Your task to perform on an android device: Add "usb-a to usb-b" to the cart on ebay.com Image 0: 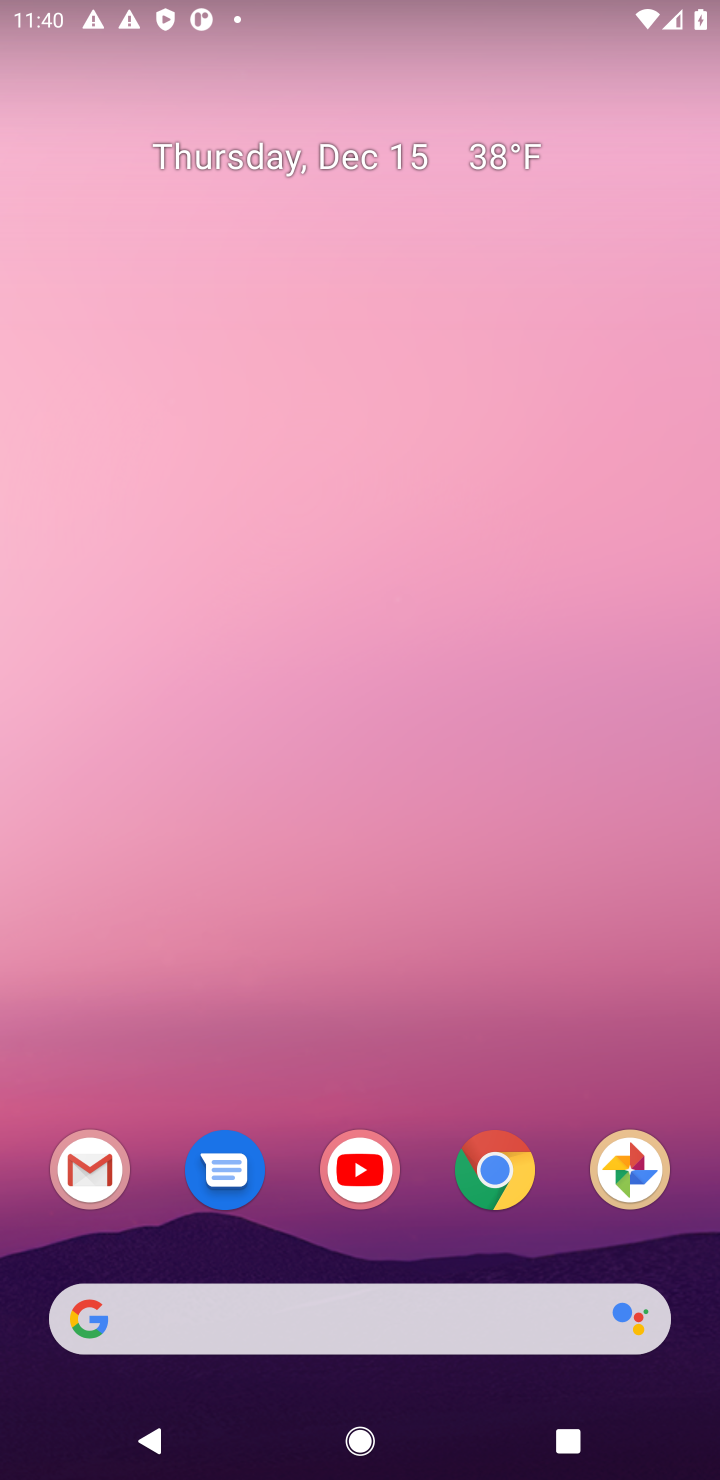
Step 0: click (501, 1176)
Your task to perform on an android device: Add "usb-a to usb-b" to the cart on ebay.com Image 1: 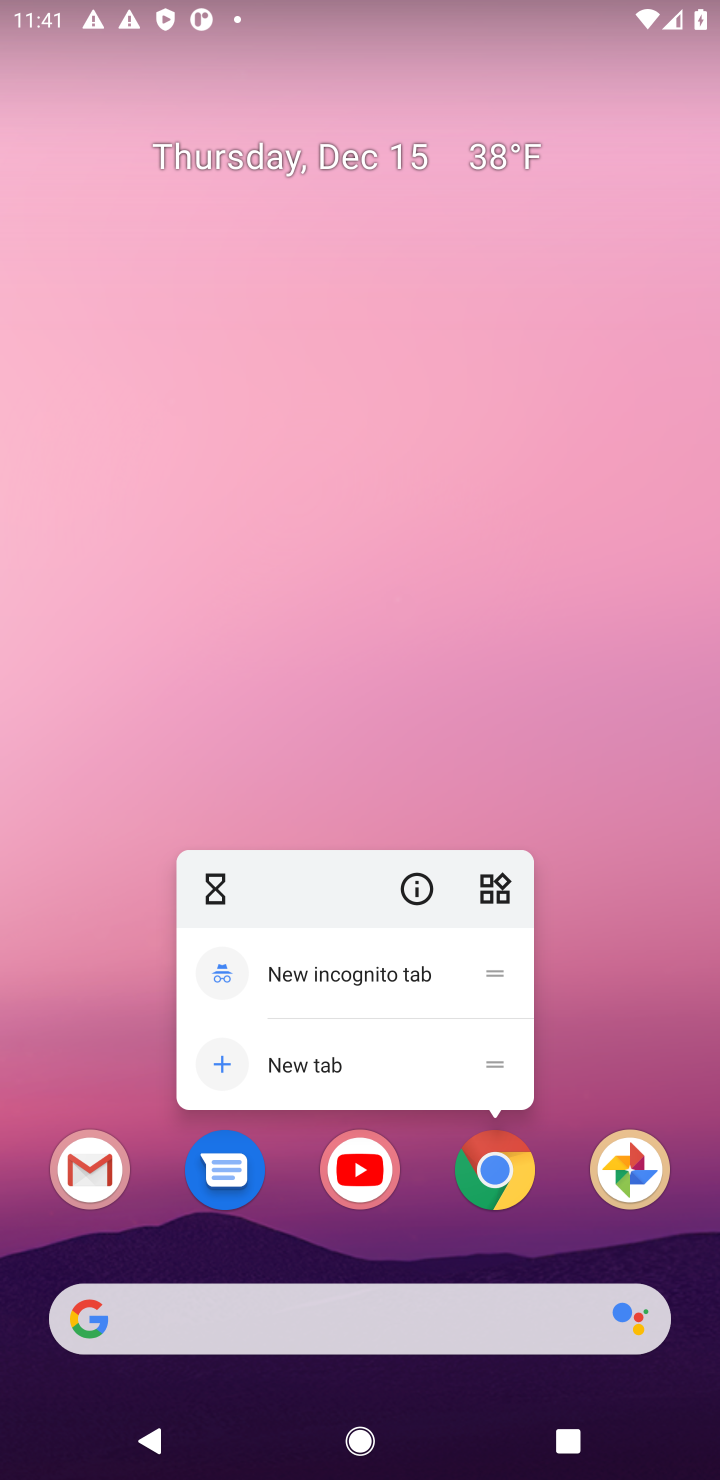
Step 1: click (501, 1176)
Your task to perform on an android device: Add "usb-a to usb-b" to the cart on ebay.com Image 2: 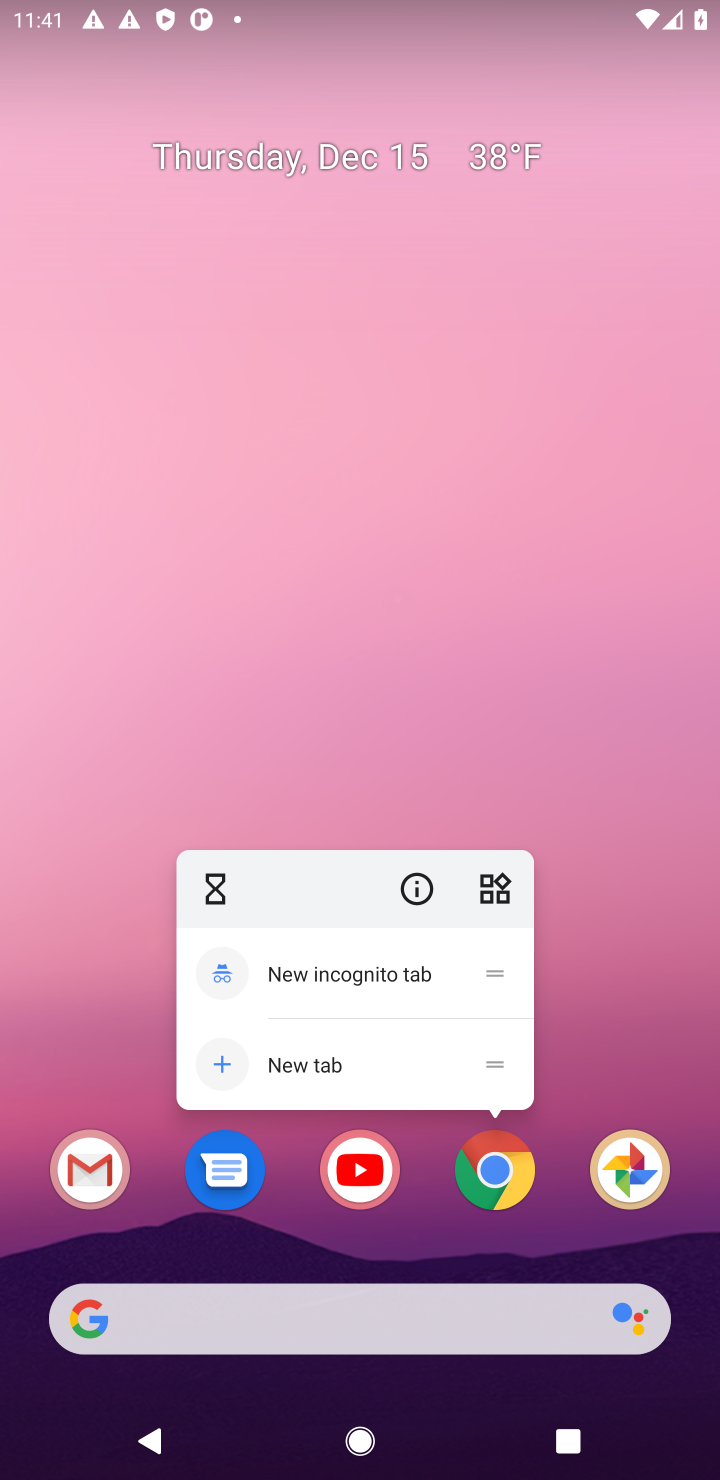
Step 2: click (493, 1182)
Your task to perform on an android device: Add "usb-a to usb-b" to the cart on ebay.com Image 3: 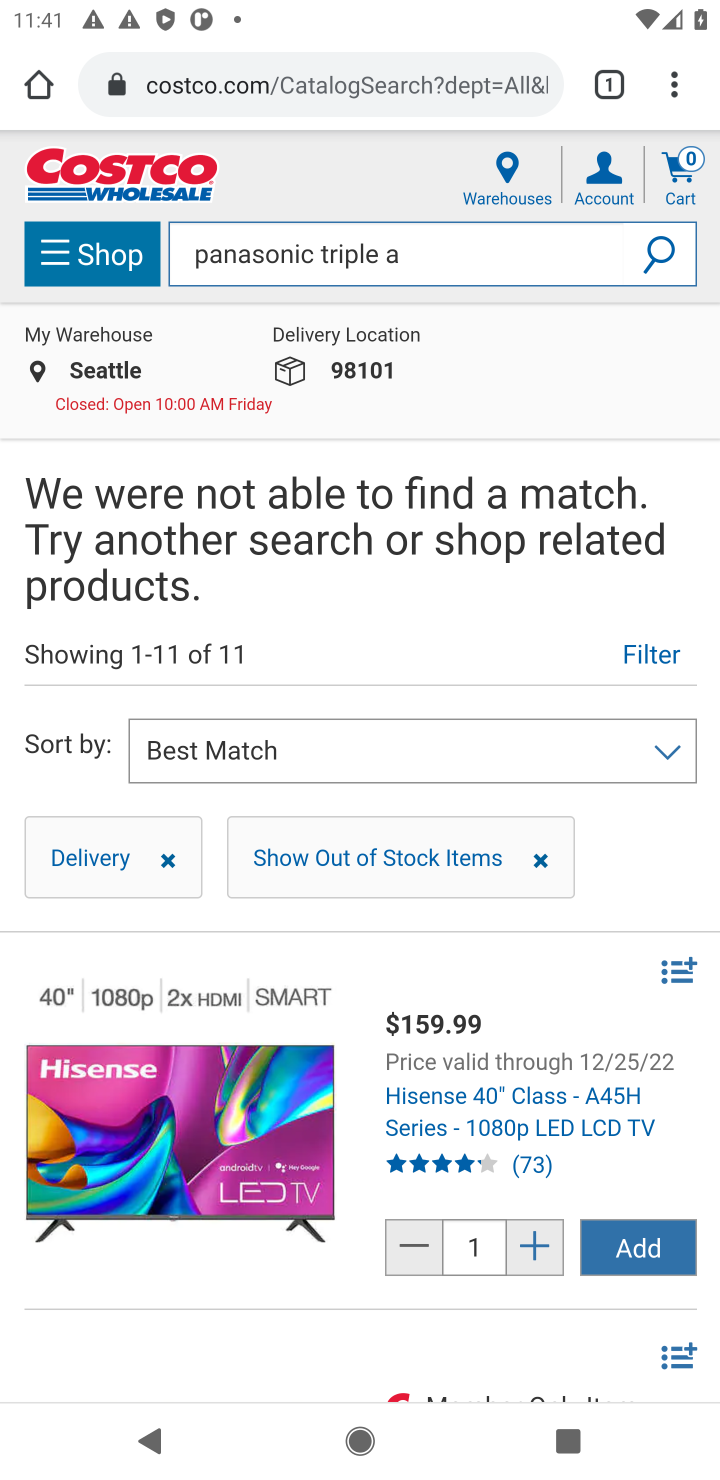
Step 3: click (239, 82)
Your task to perform on an android device: Add "usb-a to usb-b" to the cart on ebay.com Image 4: 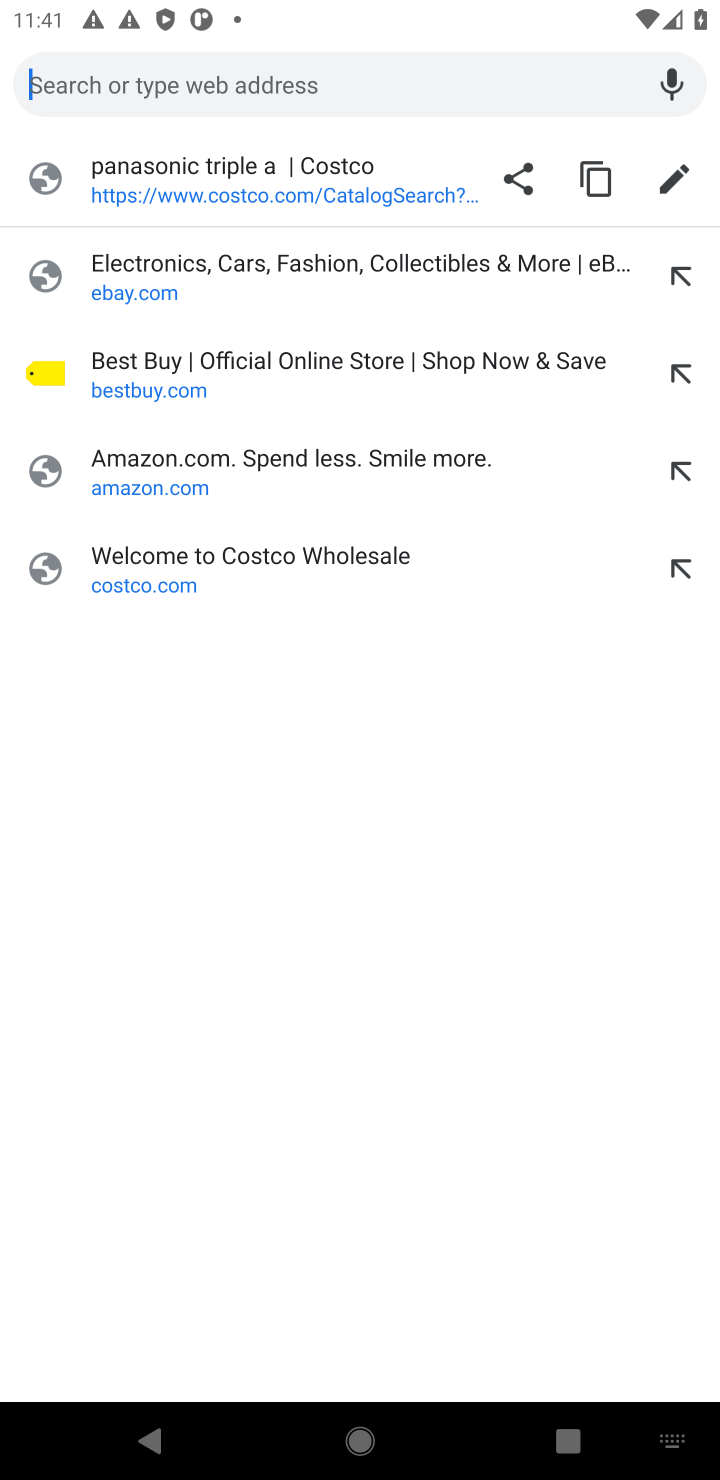
Step 4: click (121, 279)
Your task to perform on an android device: Add "usb-a to usb-b" to the cart on ebay.com Image 5: 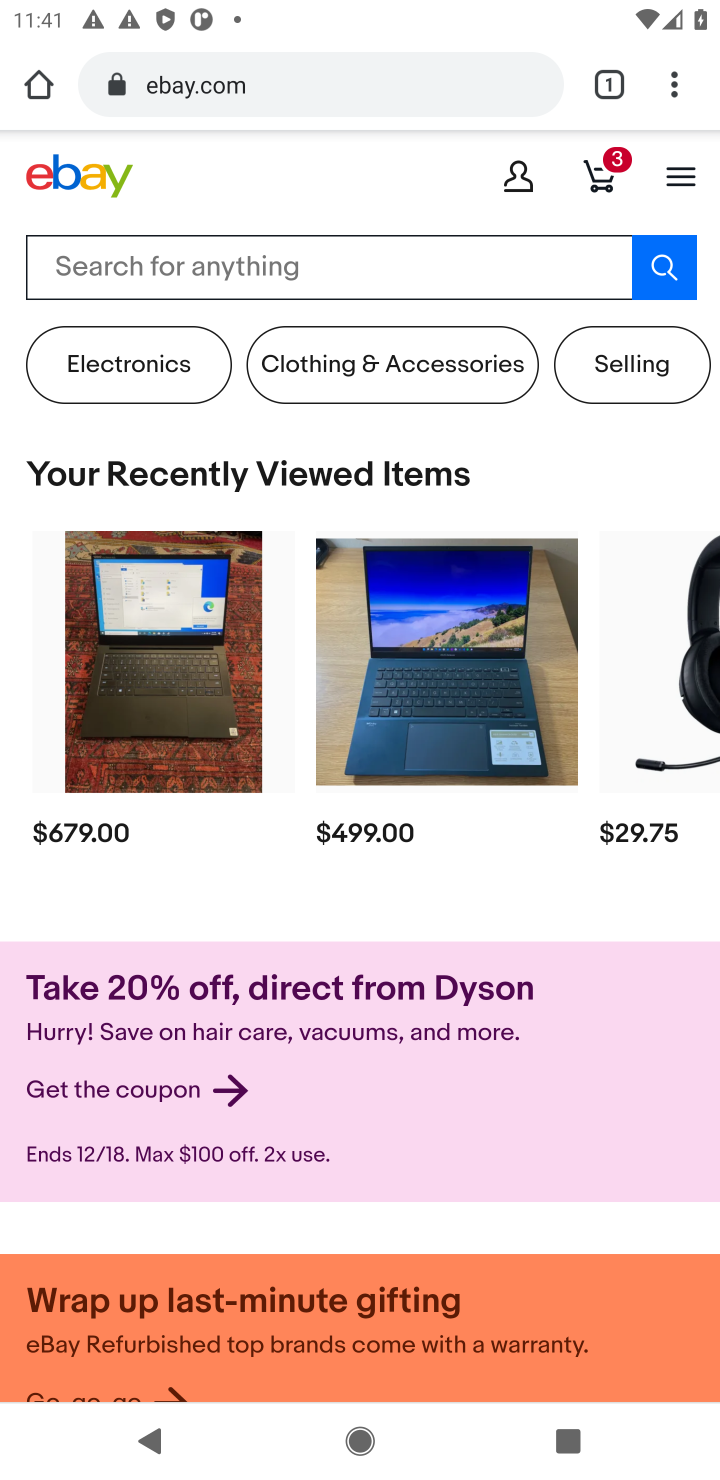
Step 5: click (112, 278)
Your task to perform on an android device: Add "usb-a to usb-b" to the cart on ebay.com Image 6: 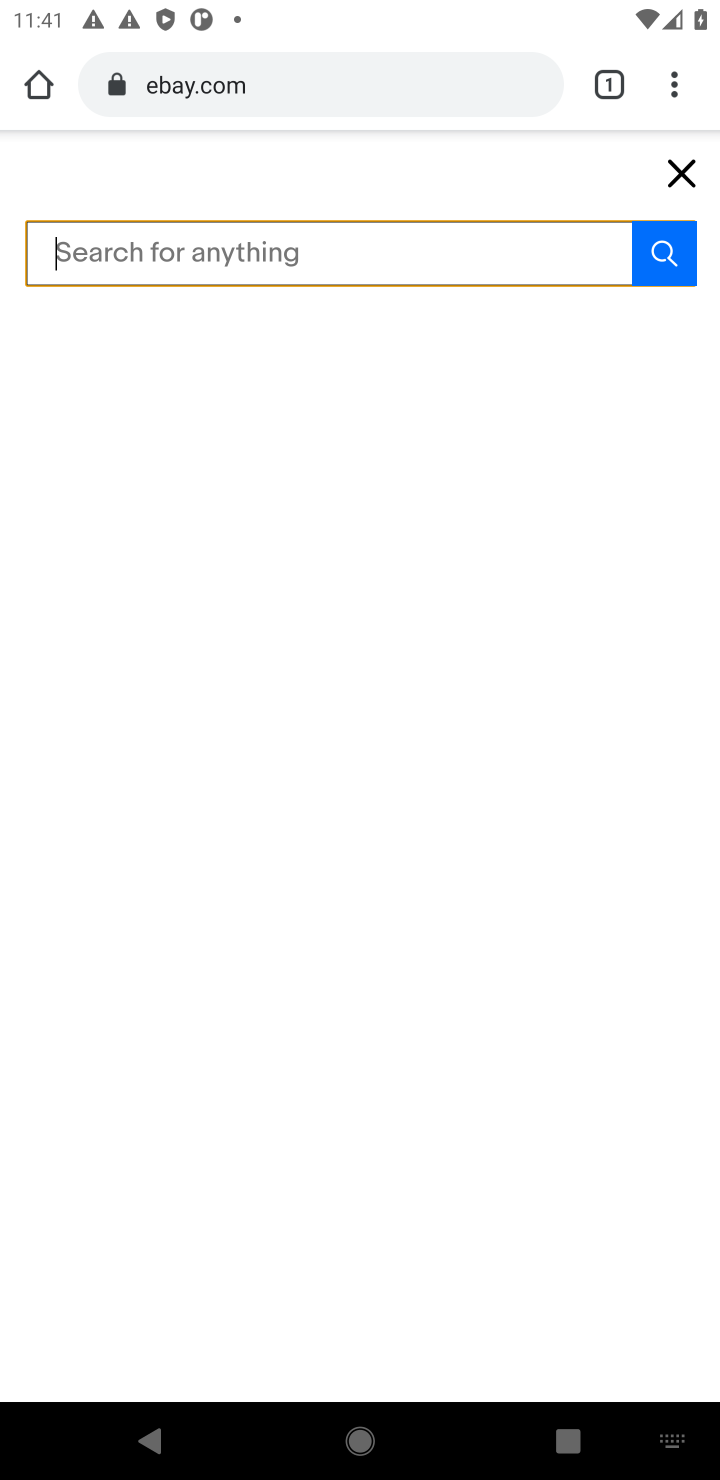
Step 6: type "usb-a to usb-b"
Your task to perform on an android device: Add "usb-a to usb-b" to the cart on ebay.com Image 7: 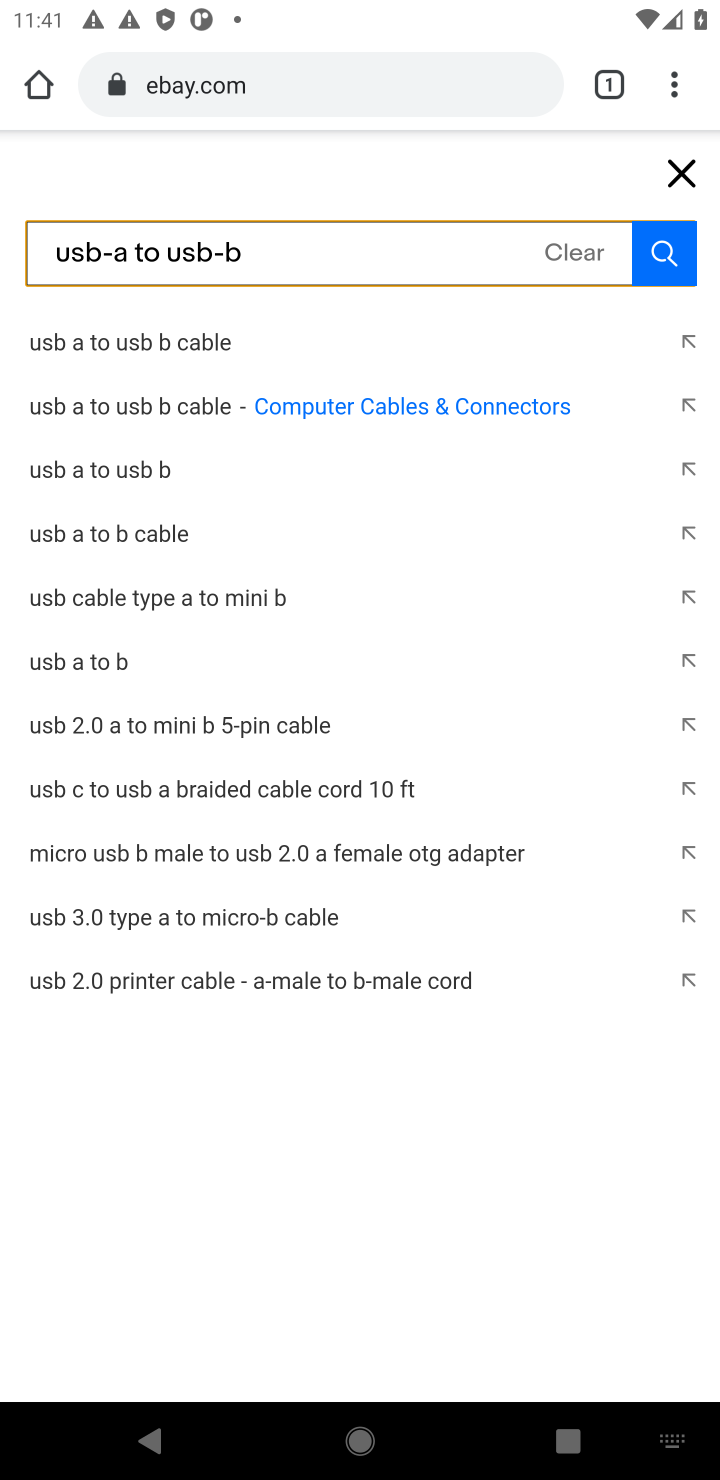
Step 7: click (115, 472)
Your task to perform on an android device: Add "usb-a to usb-b" to the cart on ebay.com Image 8: 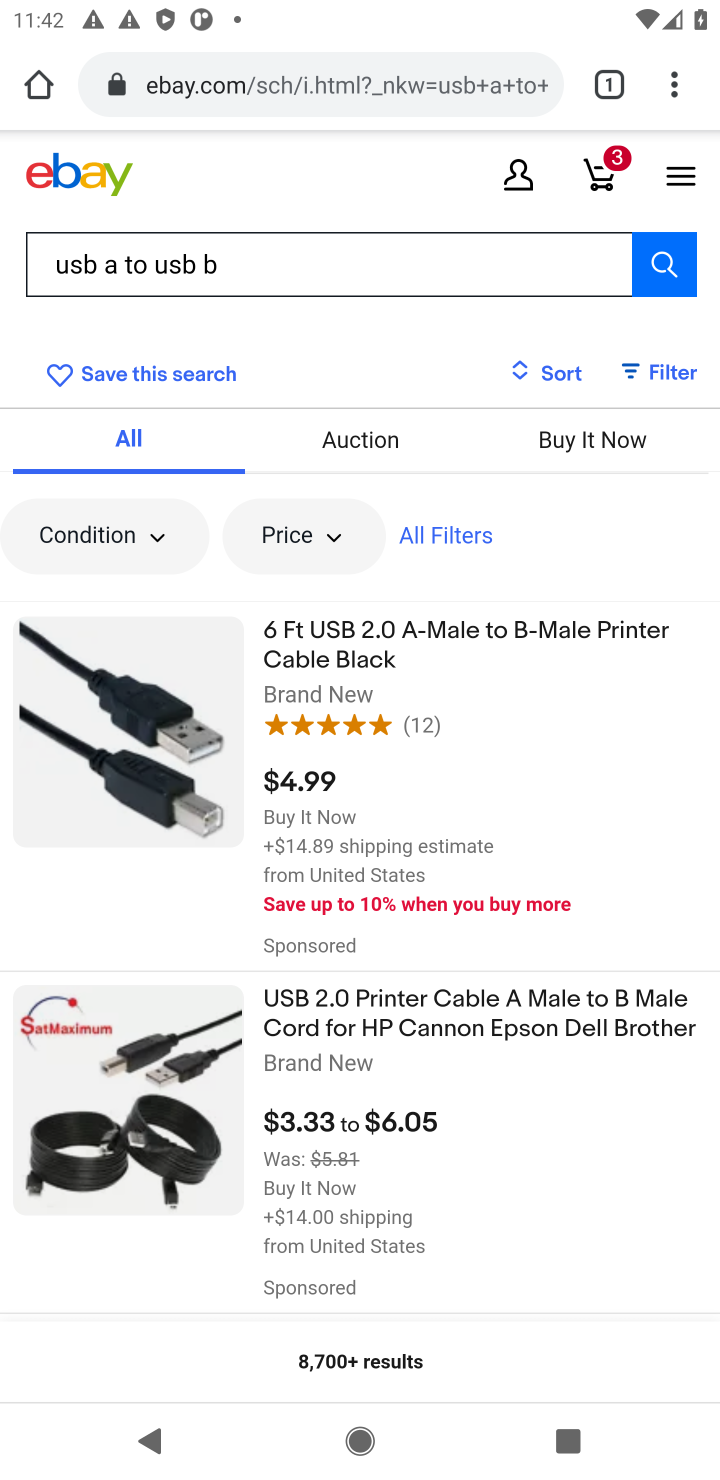
Step 8: click (330, 654)
Your task to perform on an android device: Add "usb-a to usb-b" to the cart on ebay.com Image 9: 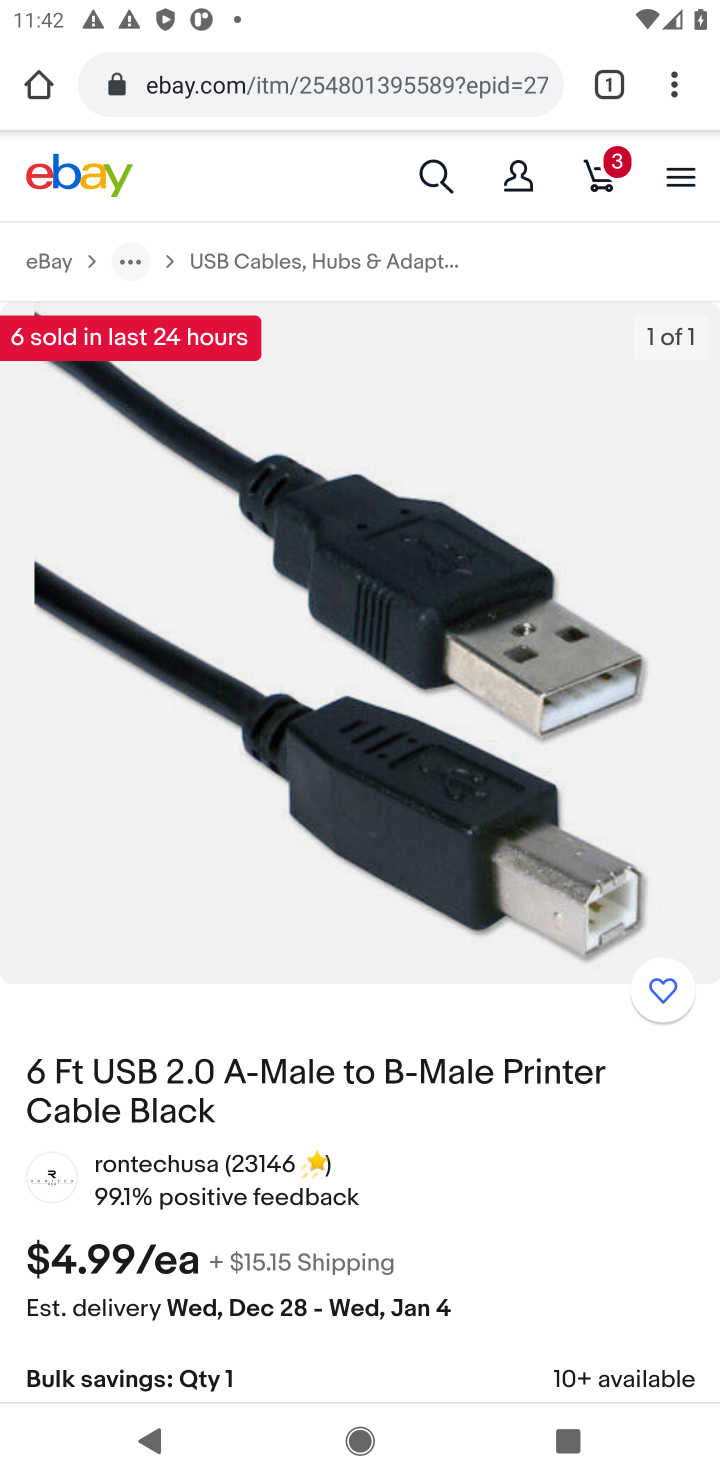
Step 9: press back button
Your task to perform on an android device: Add "usb-a to usb-b" to the cart on ebay.com Image 10: 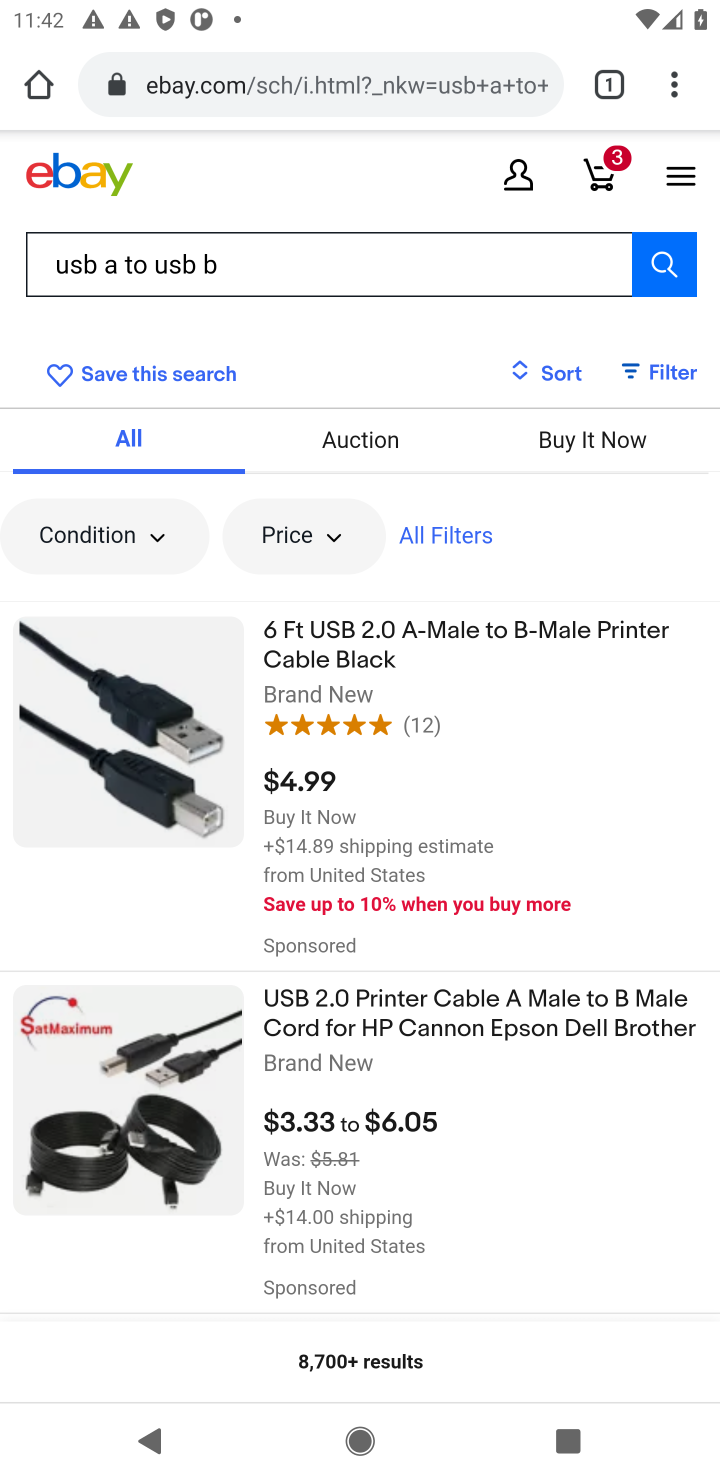
Step 10: drag from (380, 1112) to (461, 686)
Your task to perform on an android device: Add "usb-a to usb-b" to the cart on ebay.com Image 11: 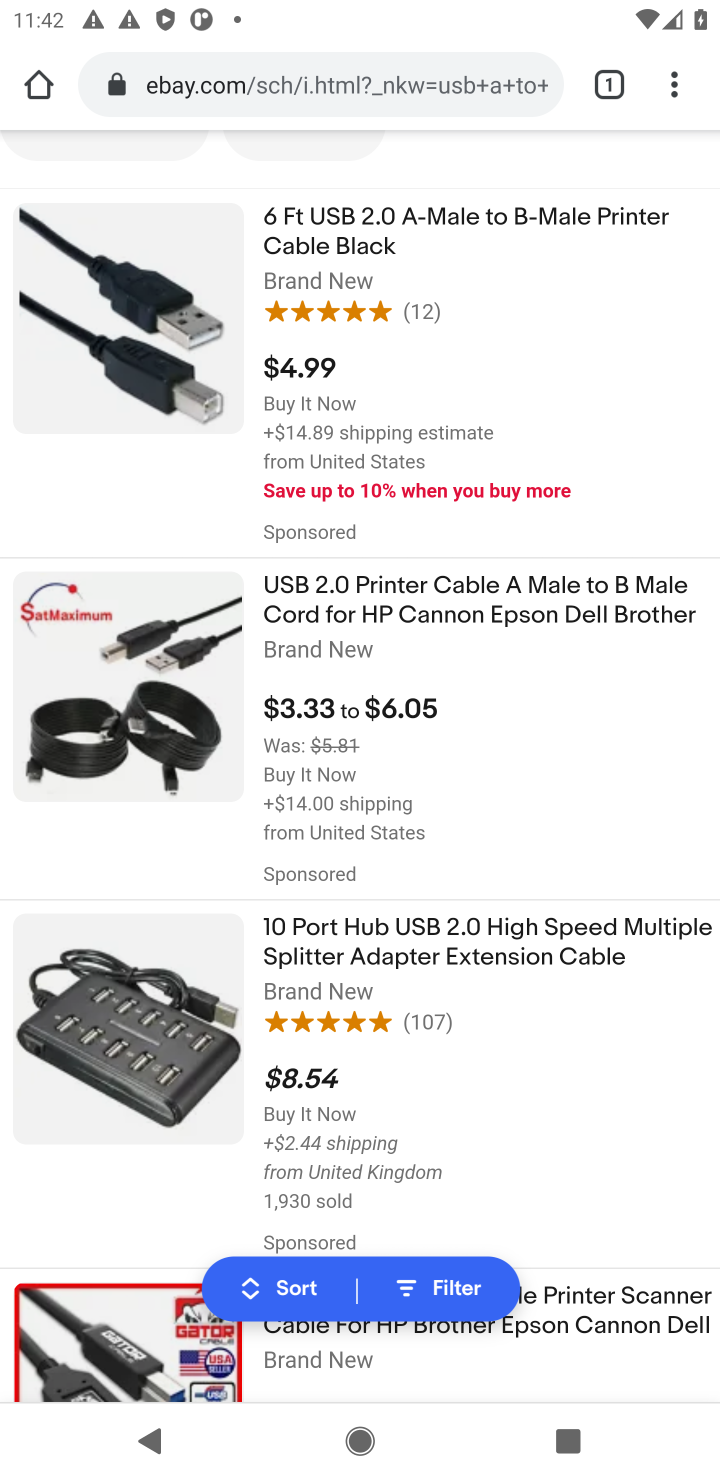
Step 11: drag from (384, 1039) to (431, 619)
Your task to perform on an android device: Add "usb-a to usb-b" to the cart on ebay.com Image 12: 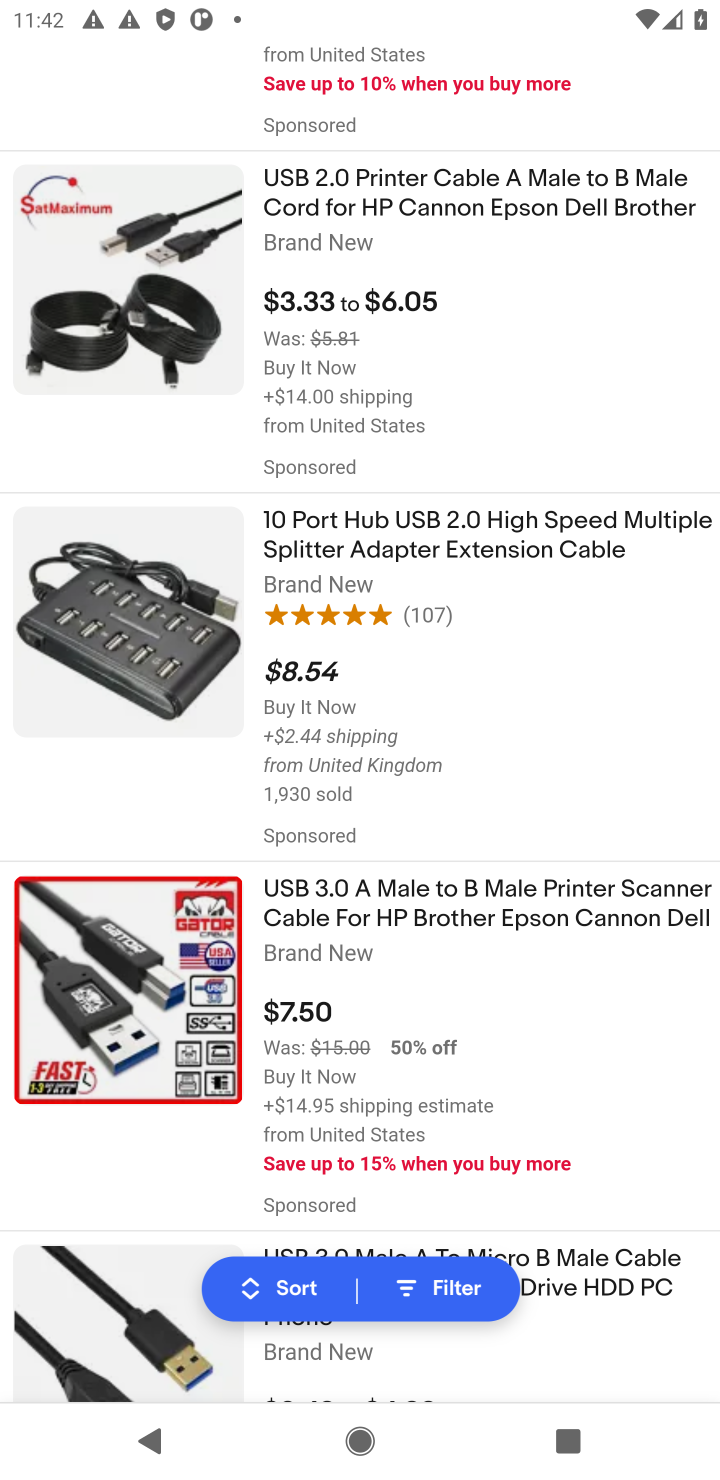
Step 12: drag from (333, 1047) to (368, 653)
Your task to perform on an android device: Add "usb-a to usb-b" to the cart on ebay.com Image 13: 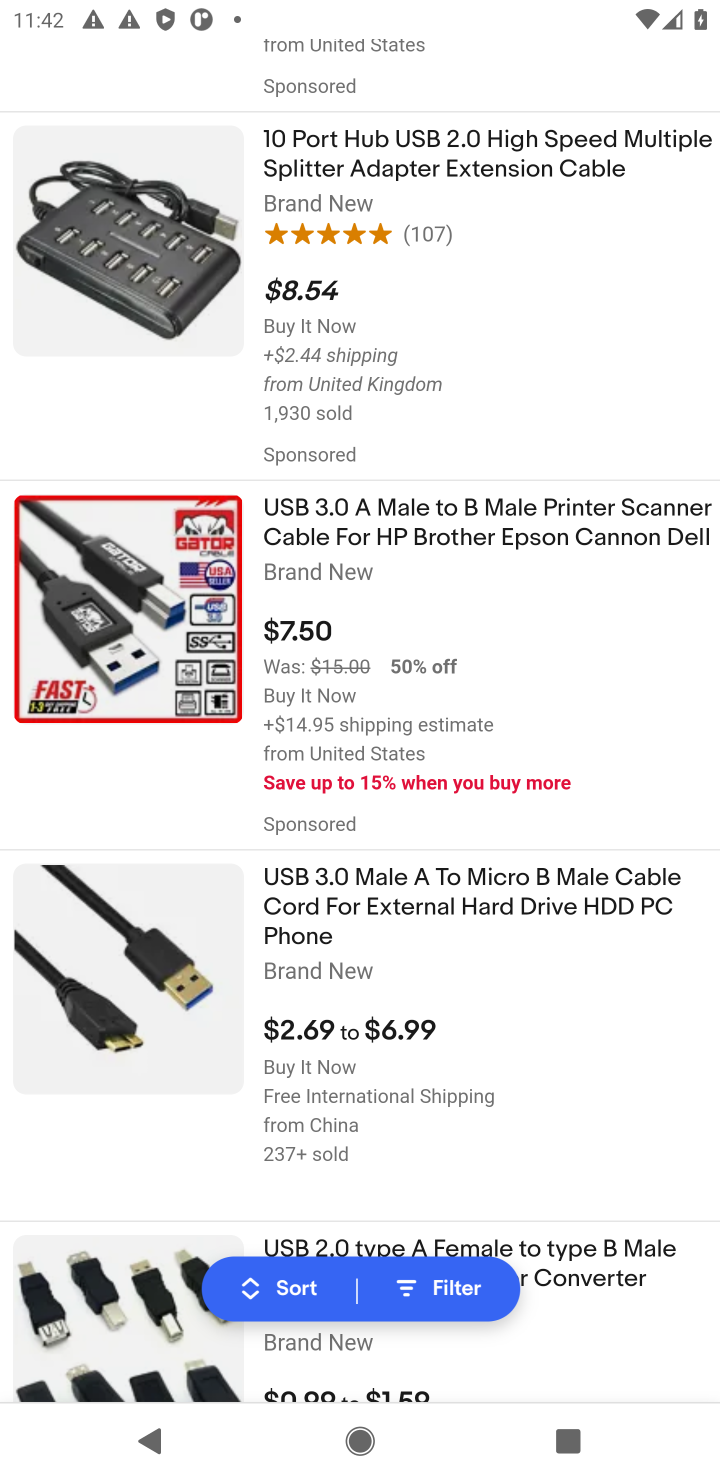
Step 13: drag from (334, 975) to (357, 581)
Your task to perform on an android device: Add "usb-a to usb-b" to the cart on ebay.com Image 14: 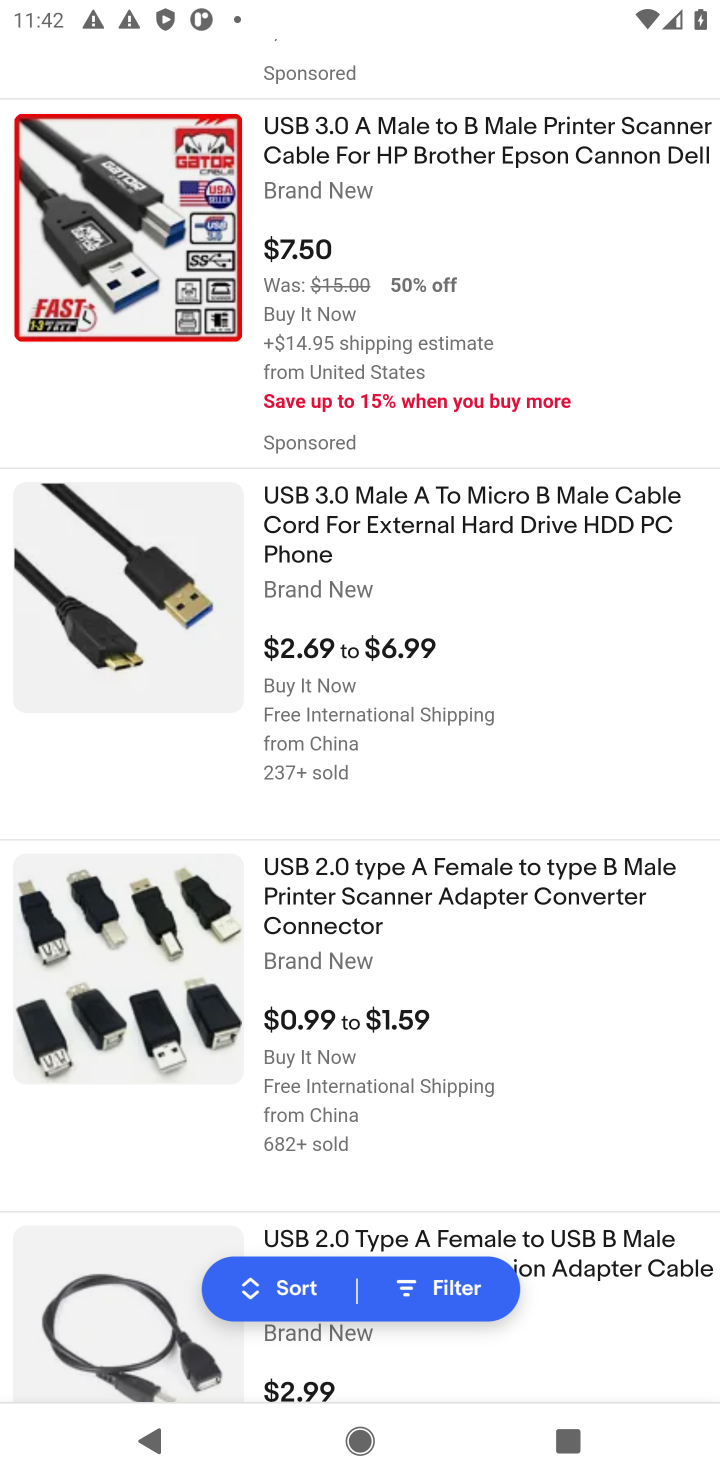
Step 14: drag from (298, 987) to (322, 698)
Your task to perform on an android device: Add "usb-a to usb-b" to the cart on ebay.com Image 15: 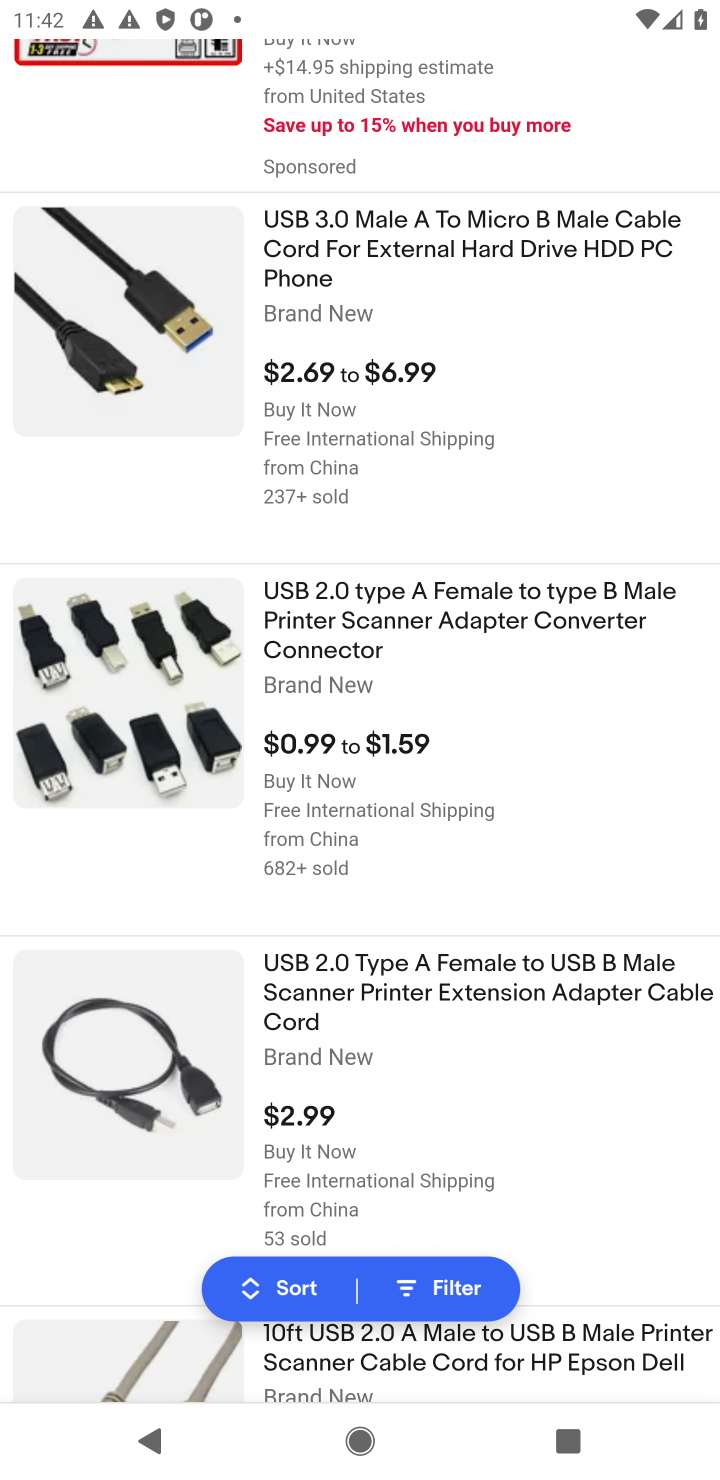
Step 15: click (337, 1006)
Your task to perform on an android device: Add "usb-a to usb-b" to the cart on ebay.com Image 16: 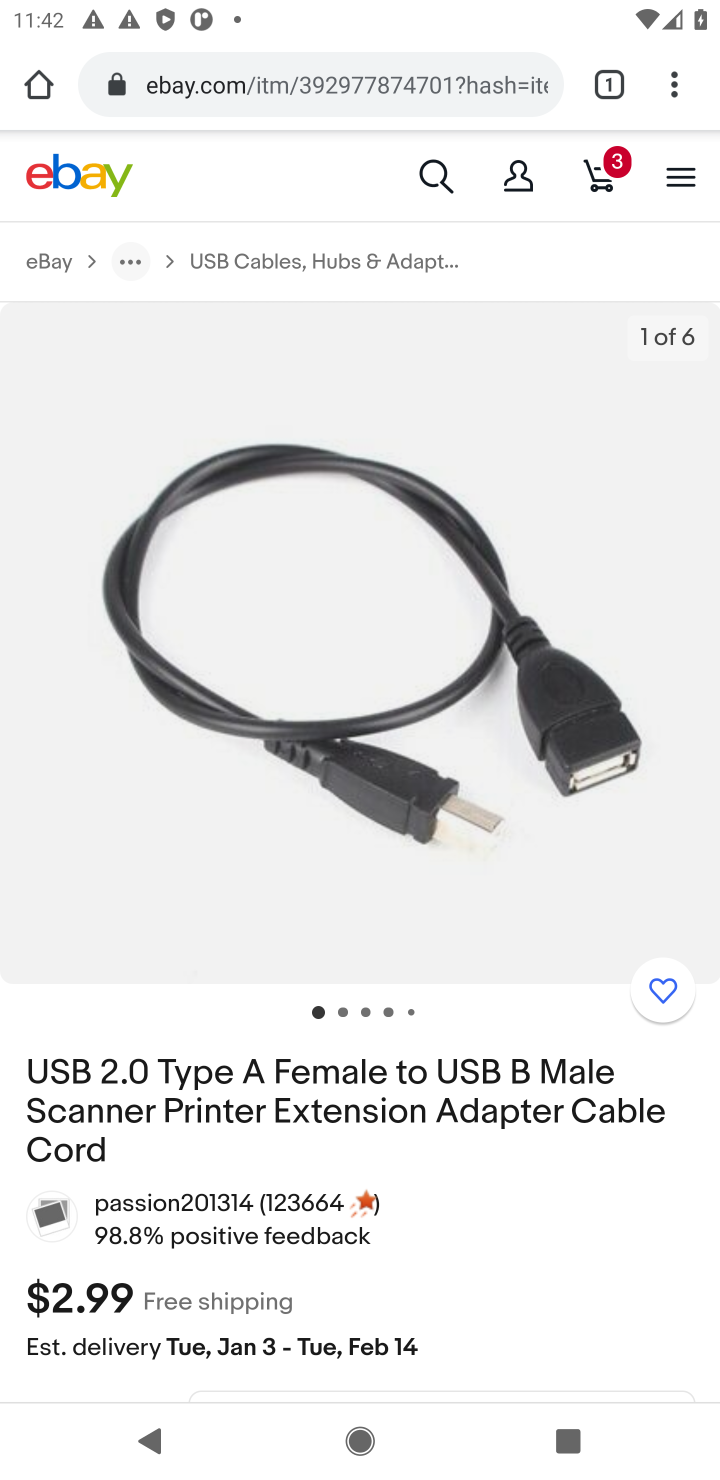
Step 16: drag from (320, 1295) to (373, 581)
Your task to perform on an android device: Add "usb-a to usb-b" to the cart on ebay.com Image 17: 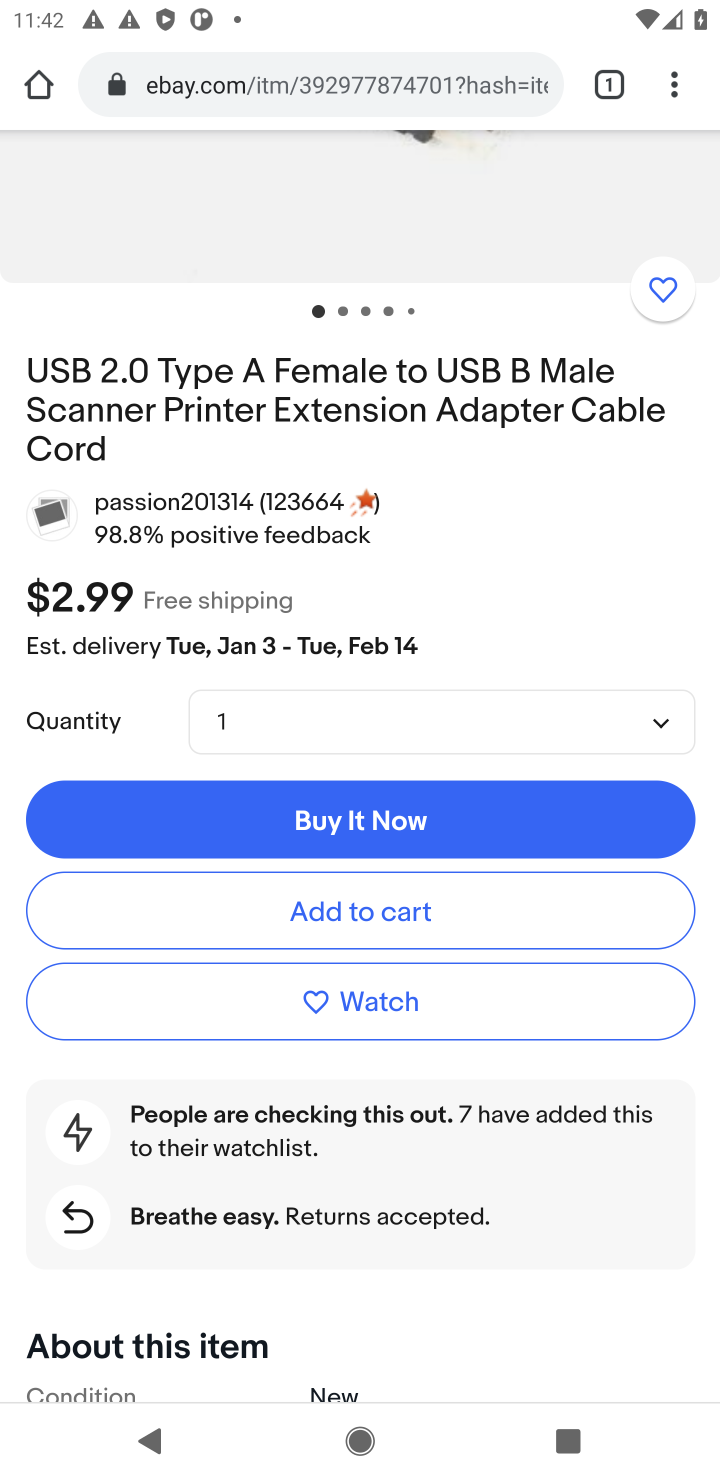
Step 17: click (332, 907)
Your task to perform on an android device: Add "usb-a to usb-b" to the cart on ebay.com Image 18: 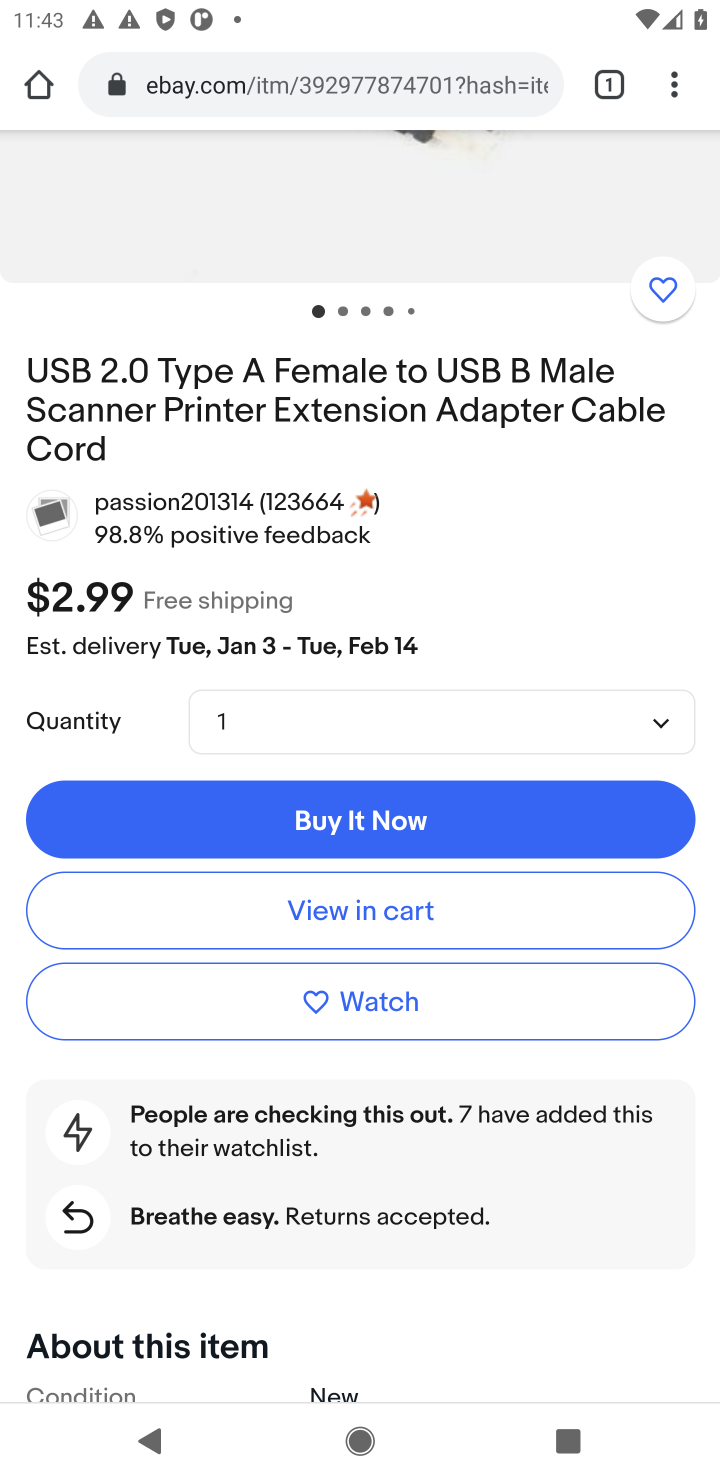
Step 18: task complete